Your task to perform on an android device: Open the Play Movies app and select the watchlist tab. Image 0: 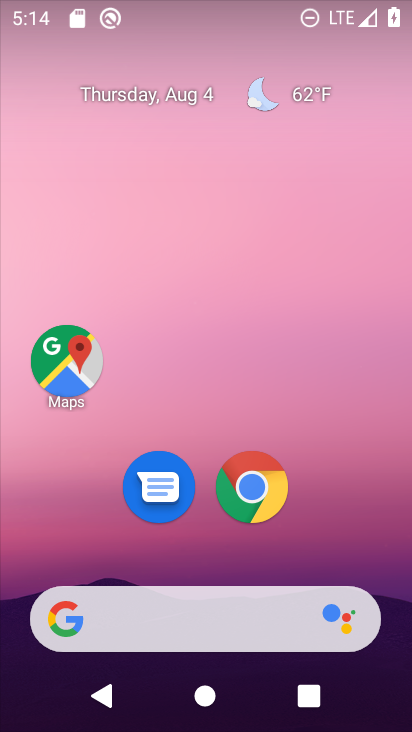
Step 0: drag from (191, 525) to (271, 11)
Your task to perform on an android device: Open the Play Movies app and select the watchlist tab. Image 1: 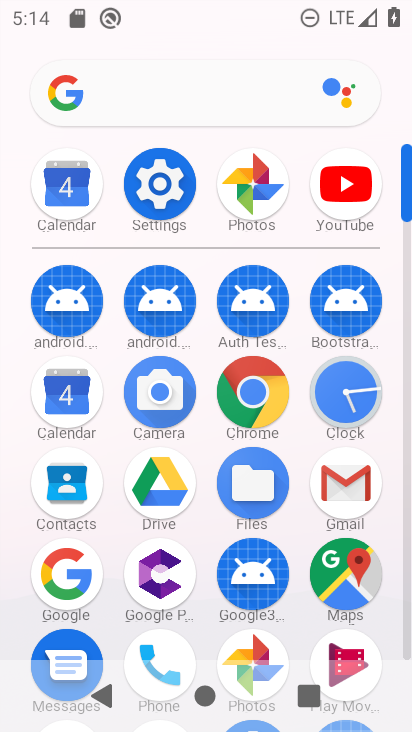
Step 1: click (337, 648)
Your task to perform on an android device: Open the Play Movies app and select the watchlist tab. Image 2: 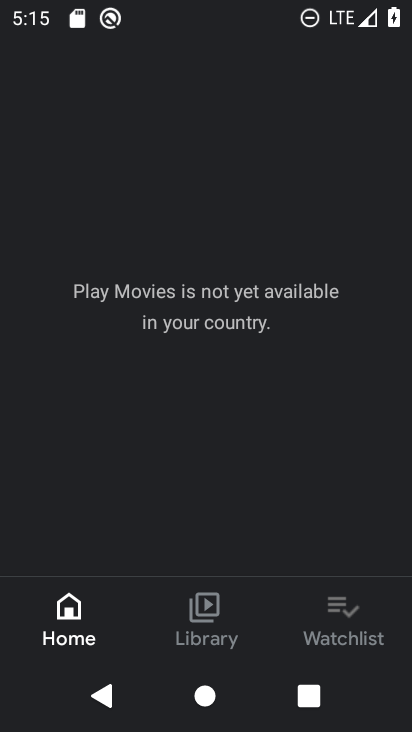
Step 2: click (338, 617)
Your task to perform on an android device: Open the Play Movies app and select the watchlist tab. Image 3: 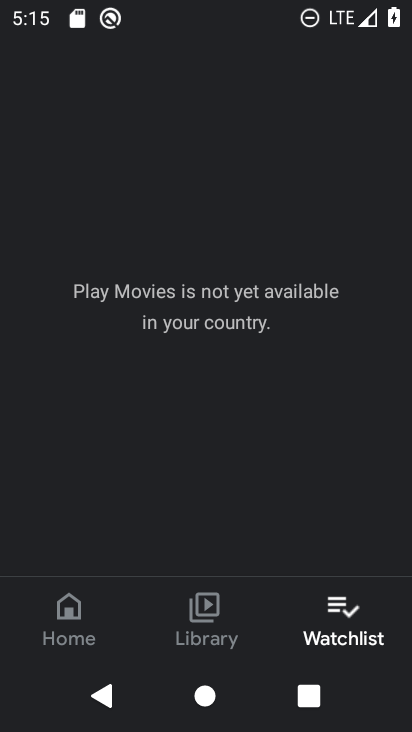
Step 3: task complete